Your task to perform on an android device: empty trash in the gmail app Image 0: 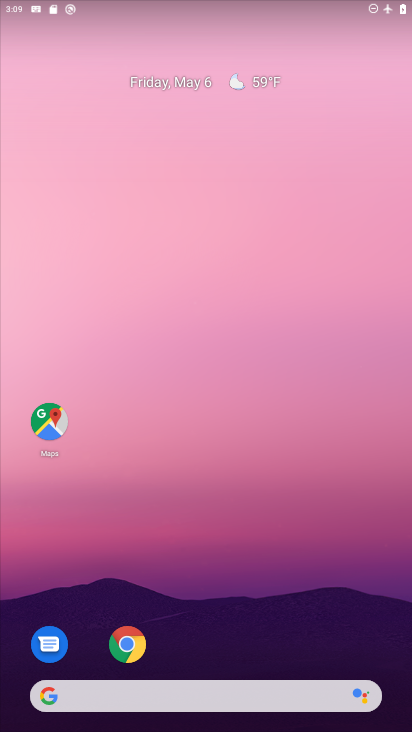
Step 0: drag from (190, 724) to (181, 150)
Your task to perform on an android device: empty trash in the gmail app Image 1: 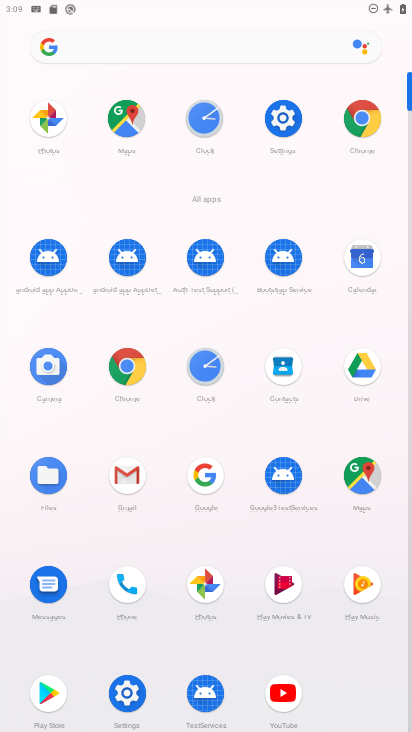
Step 1: click (122, 476)
Your task to perform on an android device: empty trash in the gmail app Image 2: 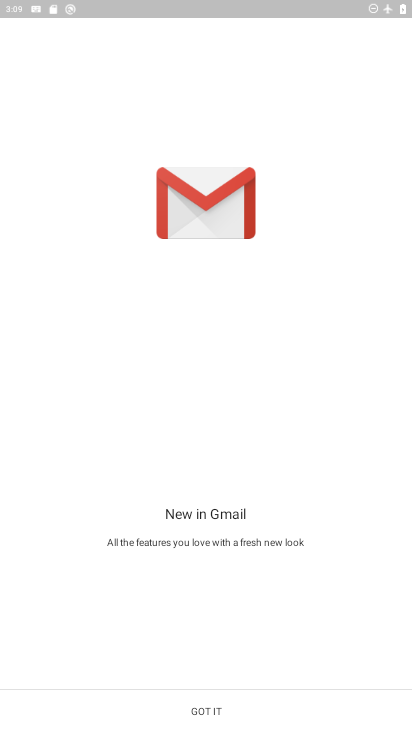
Step 2: click (206, 707)
Your task to perform on an android device: empty trash in the gmail app Image 3: 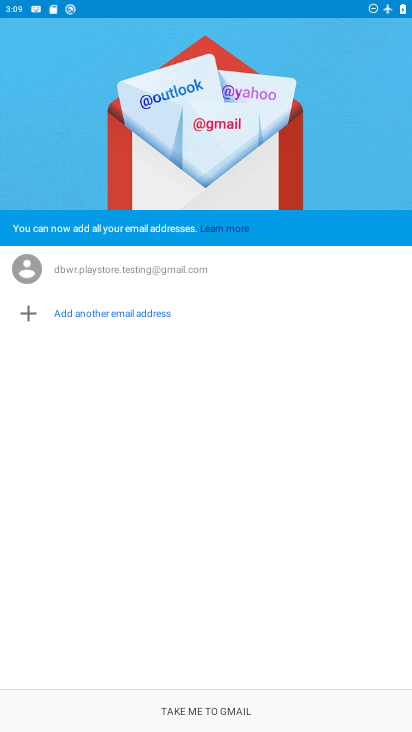
Step 3: click (209, 710)
Your task to perform on an android device: empty trash in the gmail app Image 4: 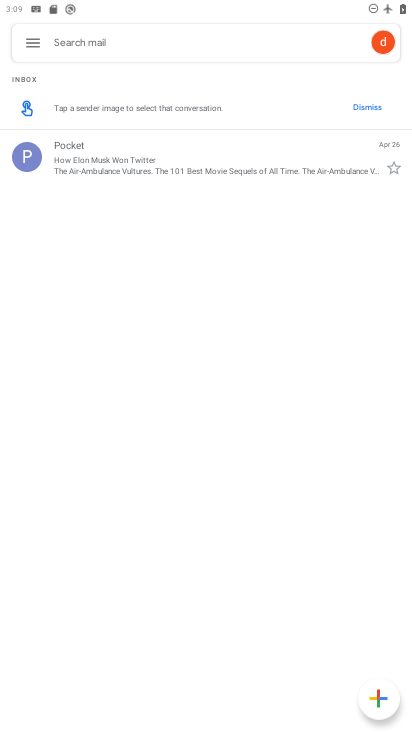
Step 4: click (27, 43)
Your task to perform on an android device: empty trash in the gmail app Image 5: 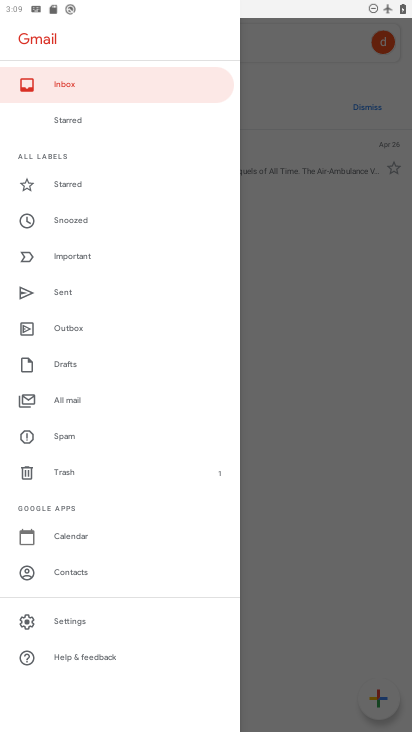
Step 5: click (70, 471)
Your task to perform on an android device: empty trash in the gmail app Image 6: 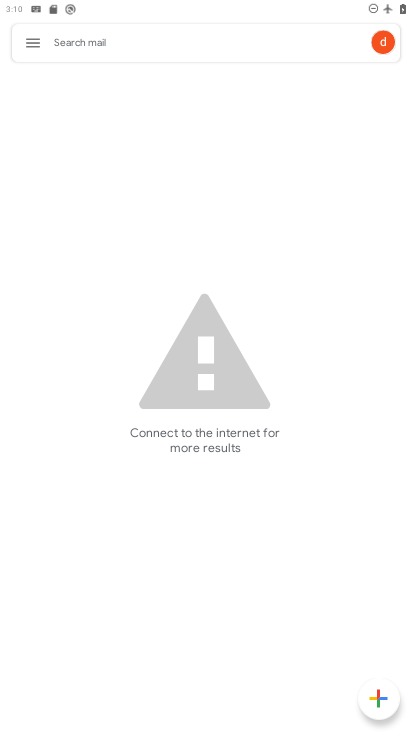
Step 6: task complete